Your task to perform on an android device: turn off javascript in the chrome app Image 0: 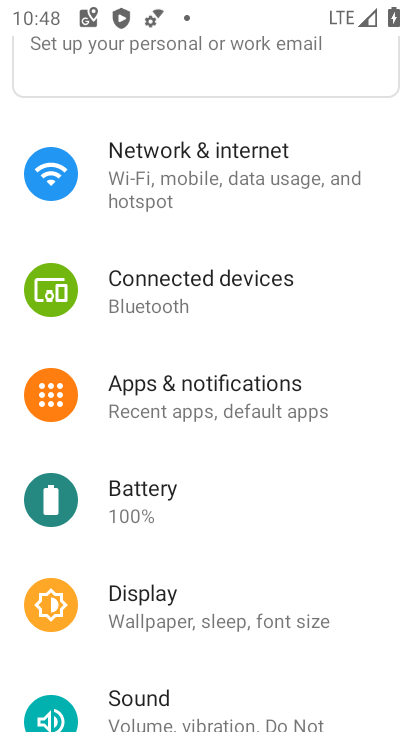
Step 0: drag from (252, 584) to (255, 399)
Your task to perform on an android device: turn off javascript in the chrome app Image 1: 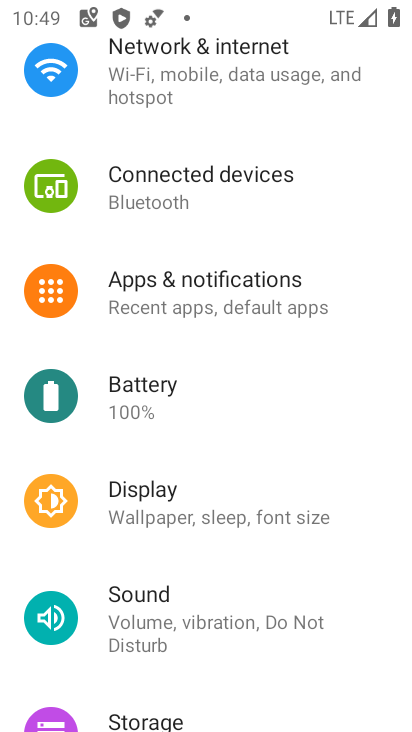
Step 1: drag from (277, 613) to (285, 317)
Your task to perform on an android device: turn off javascript in the chrome app Image 2: 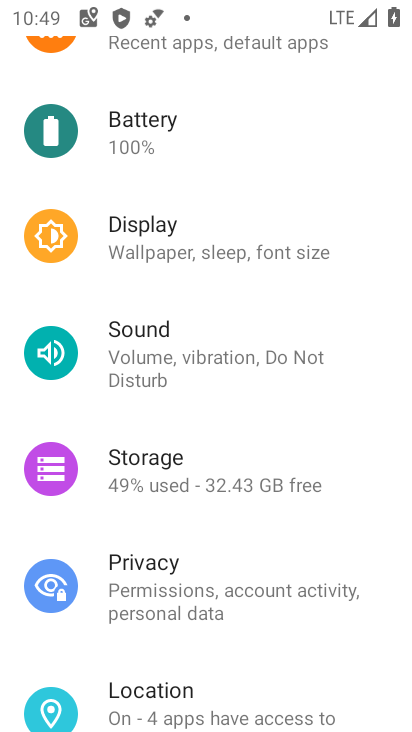
Step 2: drag from (217, 654) to (301, 413)
Your task to perform on an android device: turn off javascript in the chrome app Image 3: 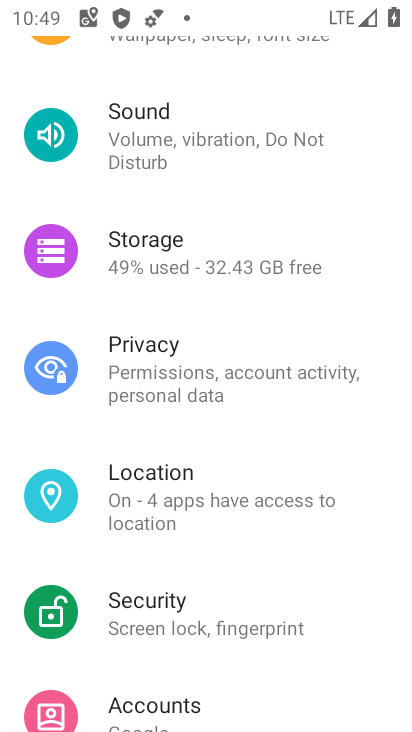
Step 3: press home button
Your task to perform on an android device: turn off javascript in the chrome app Image 4: 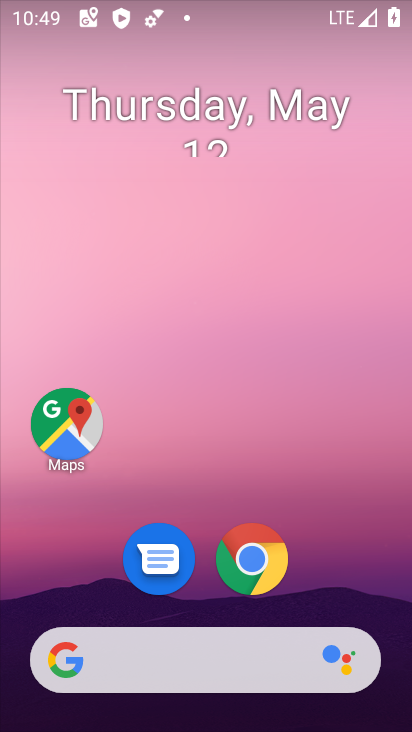
Step 4: click (277, 569)
Your task to perform on an android device: turn off javascript in the chrome app Image 5: 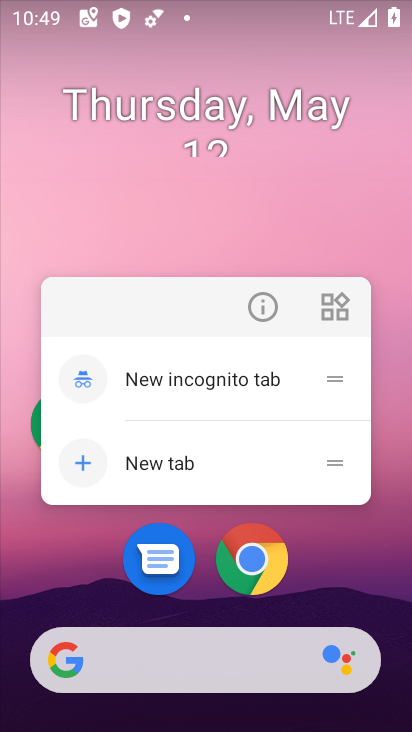
Step 5: click (272, 568)
Your task to perform on an android device: turn off javascript in the chrome app Image 6: 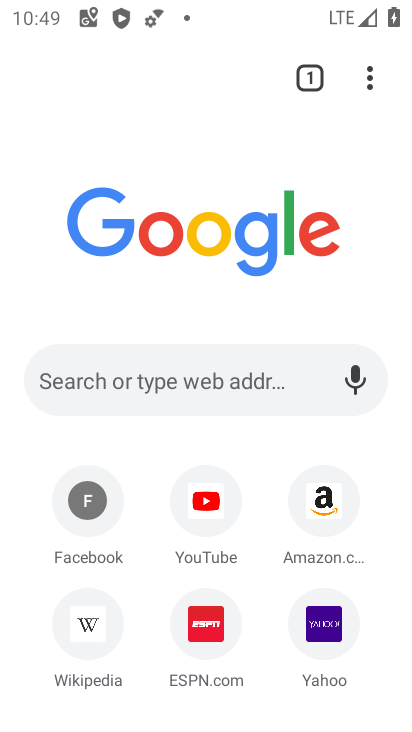
Step 6: drag from (374, 68) to (126, 637)
Your task to perform on an android device: turn off javascript in the chrome app Image 7: 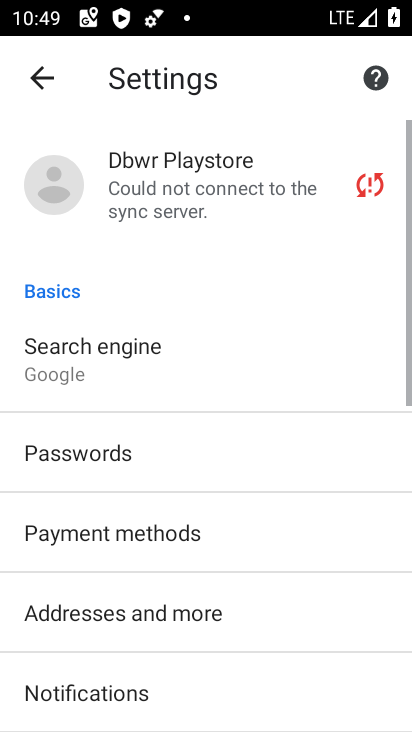
Step 7: drag from (160, 613) to (238, 315)
Your task to perform on an android device: turn off javascript in the chrome app Image 8: 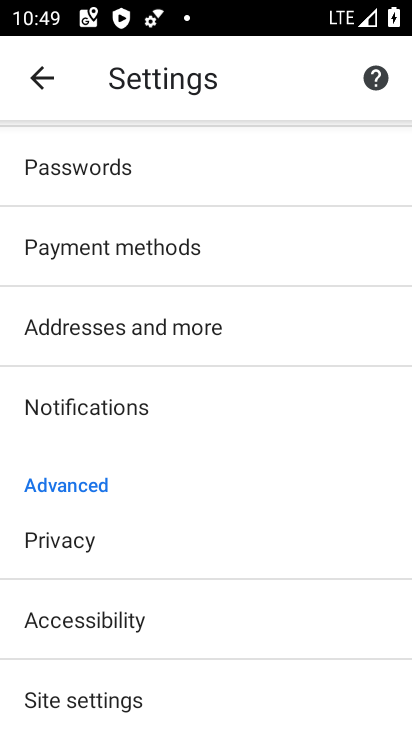
Step 8: click (147, 684)
Your task to perform on an android device: turn off javascript in the chrome app Image 9: 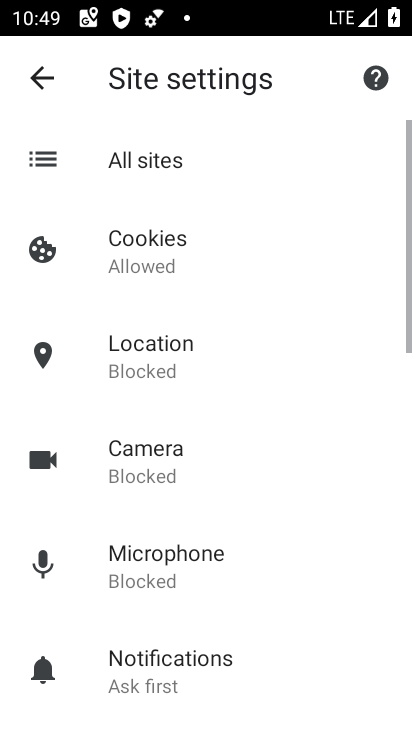
Step 9: drag from (159, 674) to (286, 345)
Your task to perform on an android device: turn off javascript in the chrome app Image 10: 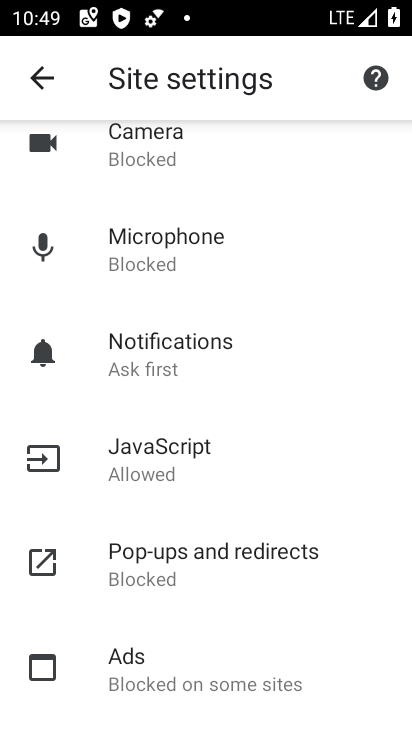
Step 10: click (234, 458)
Your task to perform on an android device: turn off javascript in the chrome app Image 11: 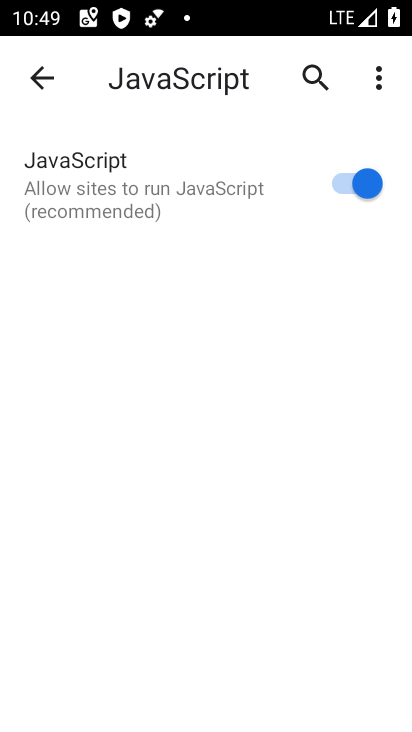
Step 11: click (336, 182)
Your task to perform on an android device: turn off javascript in the chrome app Image 12: 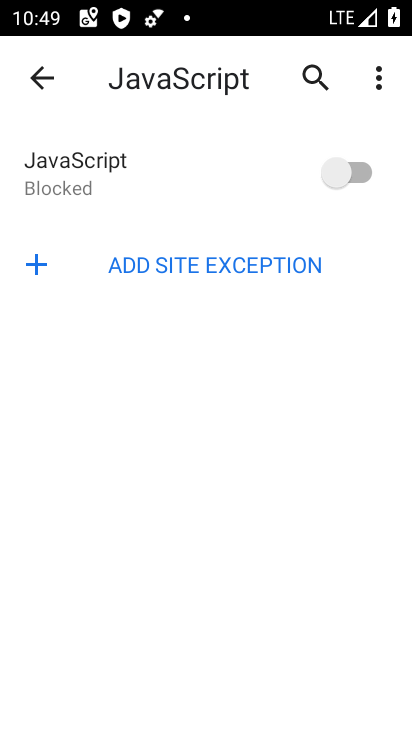
Step 12: task complete